Your task to perform on an android device: turn off location history Image 0: 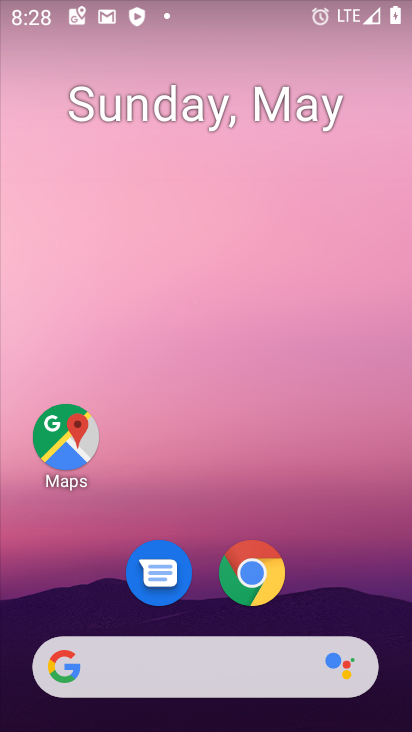
Step 0: drag from (215, 500) to (186, 1)
Your task to perform on an android device: turn off location history Image 1: 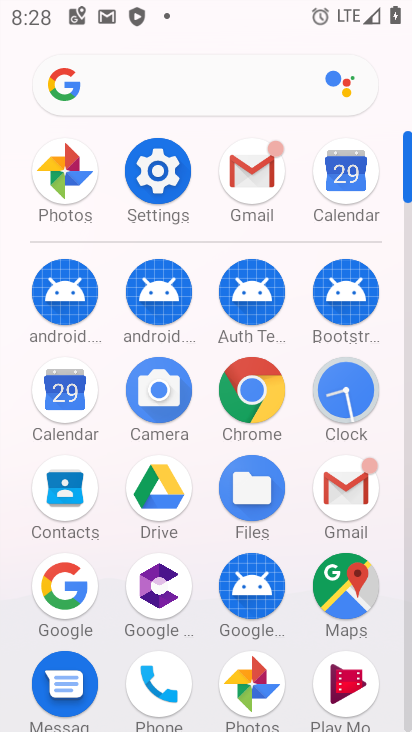
Step 1: click (159, 174)
Your task to perform on an android device: turn off location history Image 2: 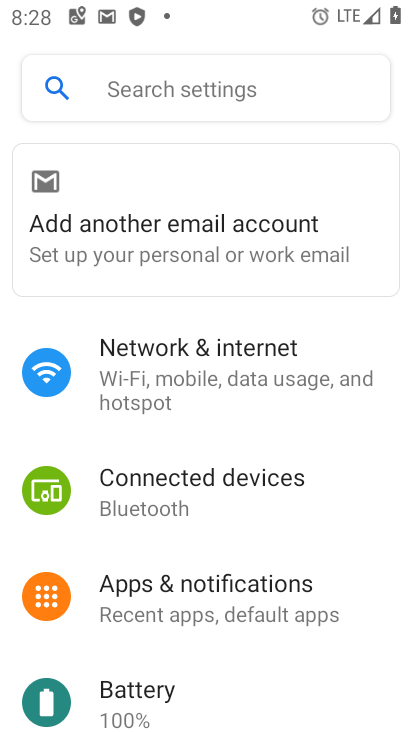
Step 2: drag from (216, 583) to (201, 28)
Your task to perform on an android device: turn off location history Image 3: 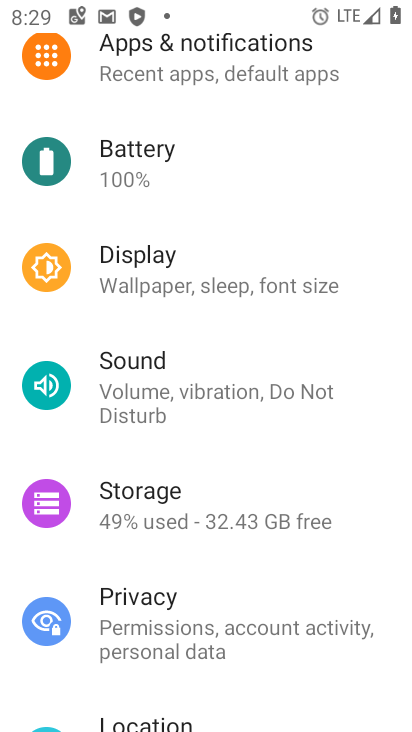
Step 3: drag from (263, 434) to (293, 17)
Your task to perform on an android device: turn off location history Image 4: 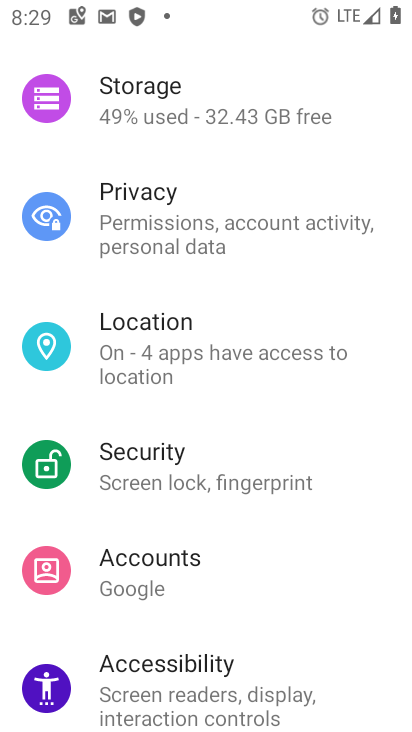
Step 4: click (251, 339)
Your task to perform on an android device: turn off location history Image 5: 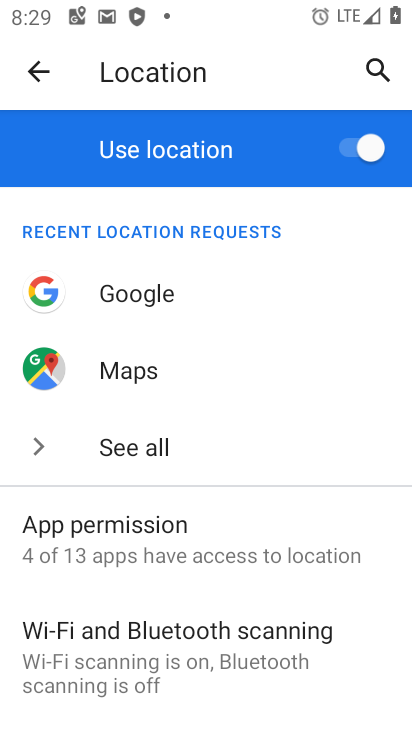
Step 5: drag from (225, 422) to (240, 187)
Your task to perform on an android device: turn off location history Image 6: 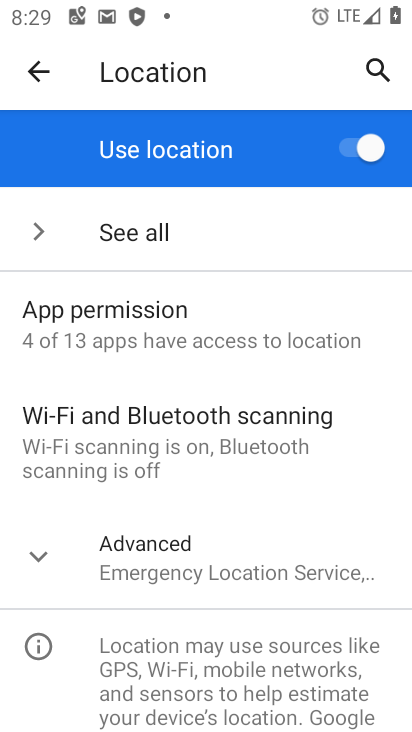
Step 6: click (37, 552)
Your task to perform on an android device: turn off location history Image 7: 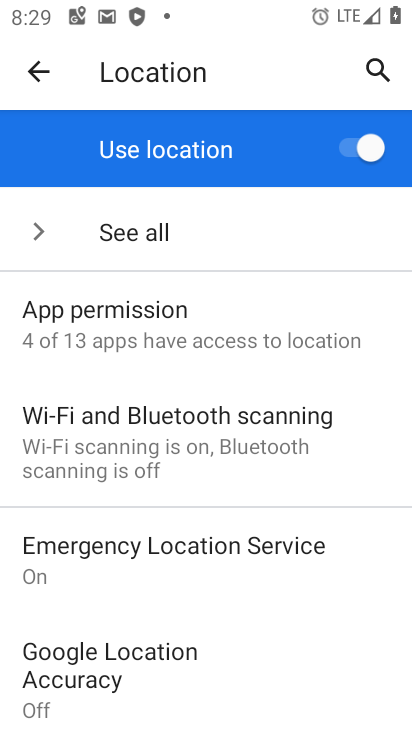
Step 7: drag from (306, 633) to (286, 219)
Your task to perform on an android device: turn off location history Image 8: 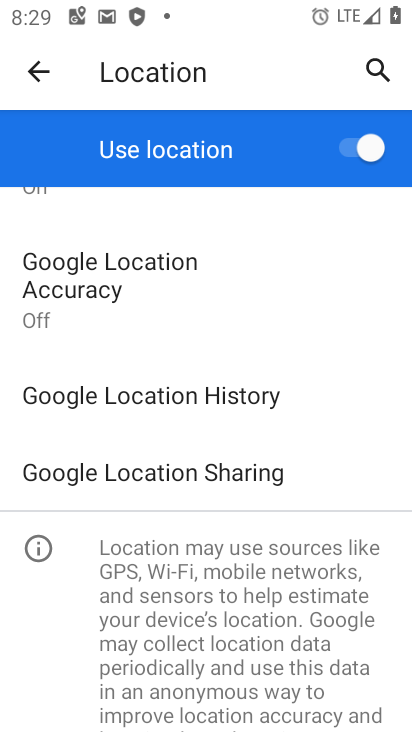
Step 8: click (187, 394)
Your task to perform on an android device: turn off location history Image 9: 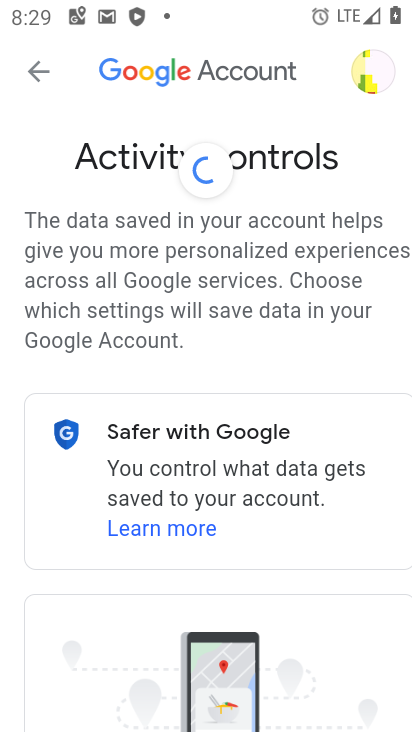
Step 9: drag from (222, 514) to (242, 0)
Your task to perform on an android device: turn off location history Image 10: 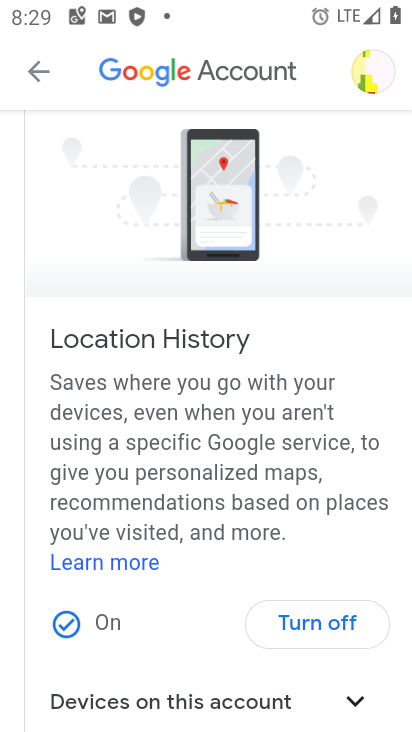
Step 10: click (329, 612)
Your task to perform on an android device: turn off location history Image 11: 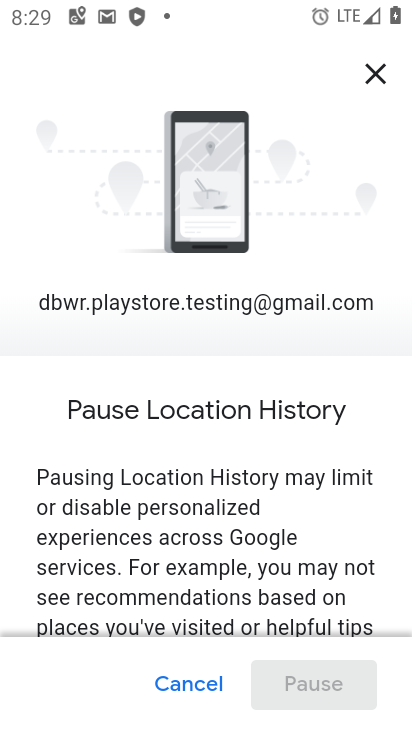
Step 11: drag from (309, 563) to (292, 9)
Your task to perform on an android device: turn off location history Image 12: 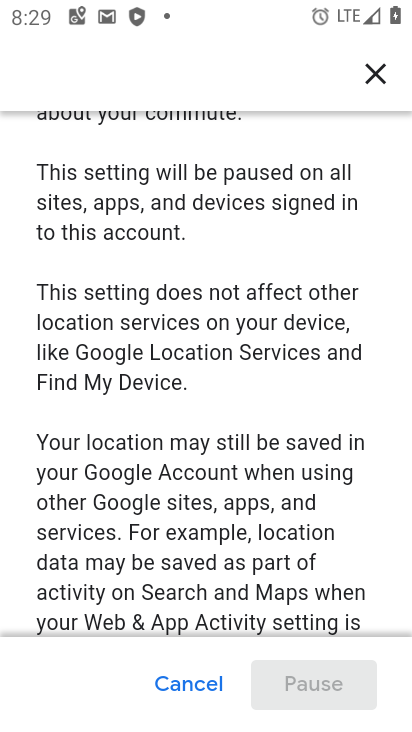
Step 12: drag from (261, 614) to (240, 14)
Your task to perform on an android device: turn off location history Image 13: 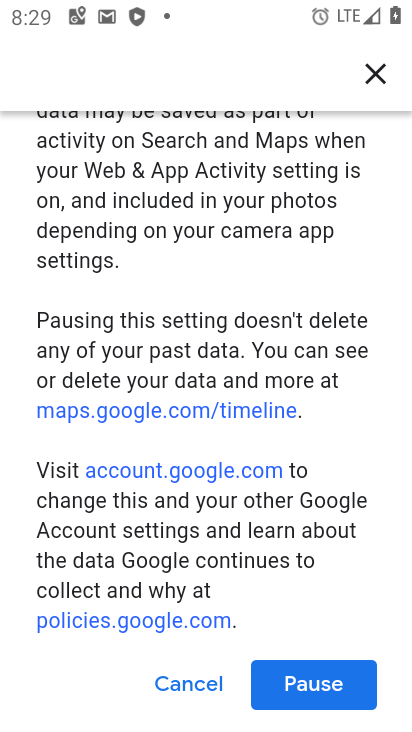
Step 13: click (331, 684)
Your task to perform on an android device: turn off location history Image 14: 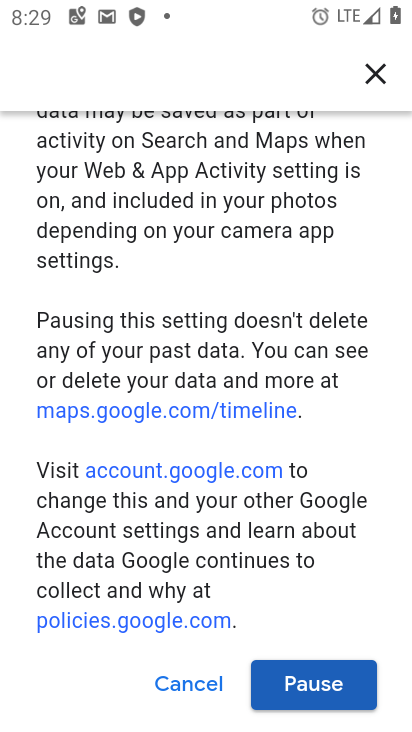
Step 14: click (331, 686)
Your task to perform on an android device: turn off location history Image 15: 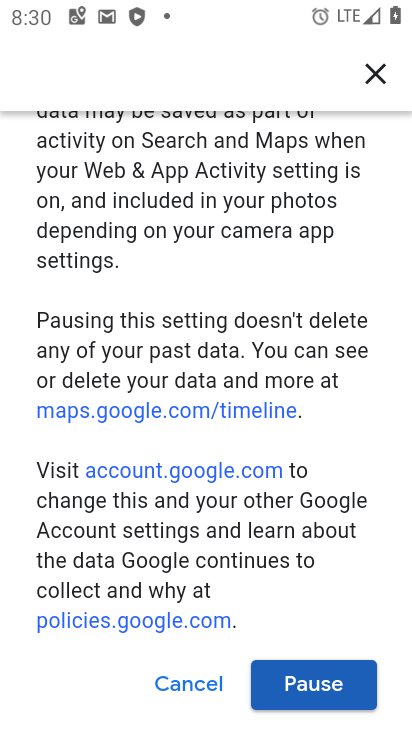
Step 15: click (337, 680)
Your task to perform on an android device: turn off location history Image 16: 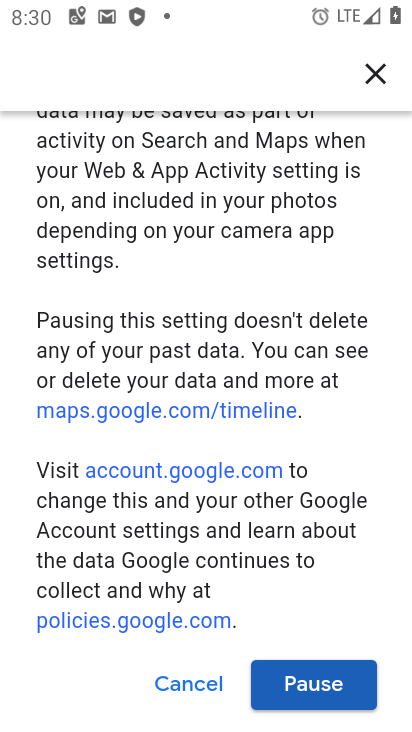
Step 16: click (302, 690)
Your task to perform on an android device: turn off location history Image 17: 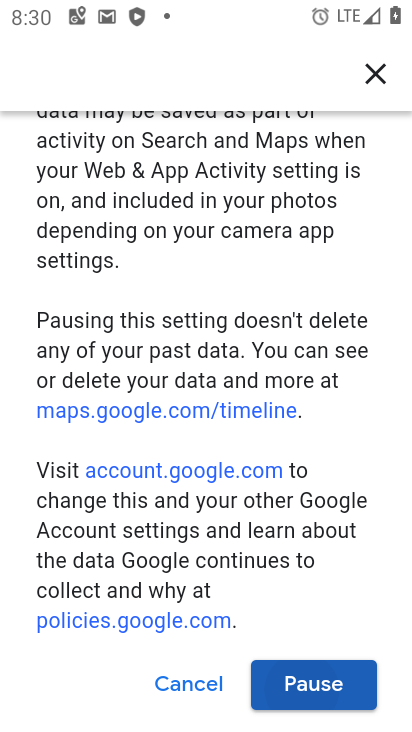
Step 17: click (302, 690)
Your task to perform on an android device: turn off location history Image 18: 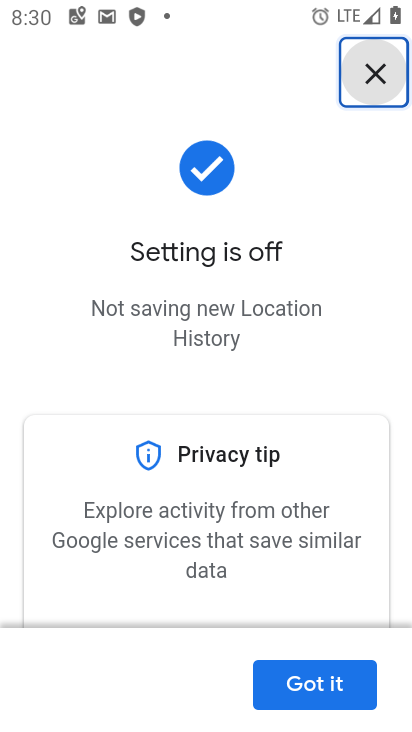
Step 18: click (354, 678)
Your task to perform on an android device: turn off location history Image 19: 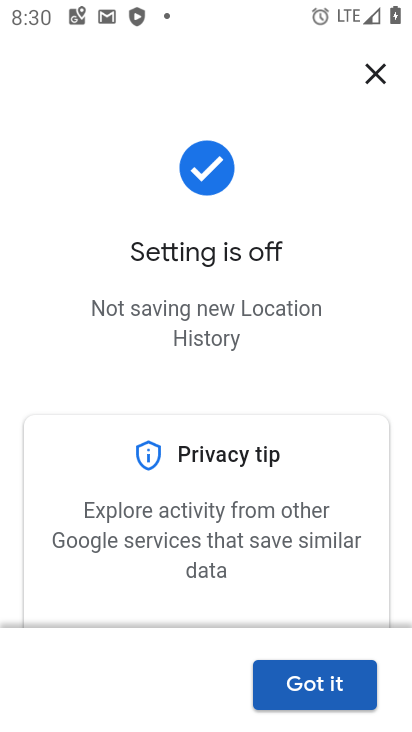
Step 19: click (315, 685)
Your task to perform on an android device: turn off location history Image 20: 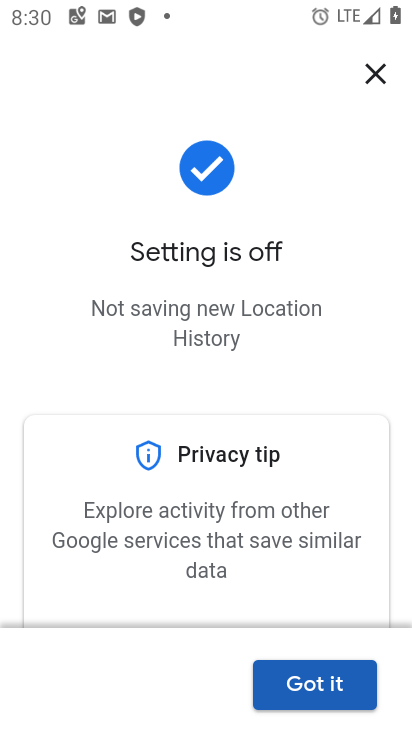
Step 20: click (315, 685)
Your task to perform on an android device: turn off location history Image 21: 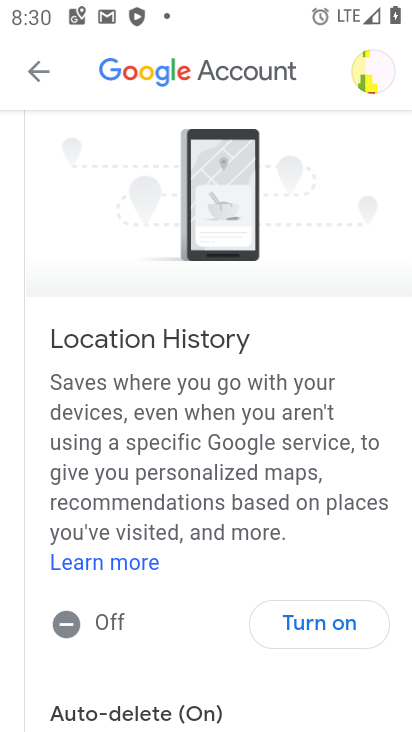
Step 21: task complete